Your task to perform on an android device: check data usage Image 0: 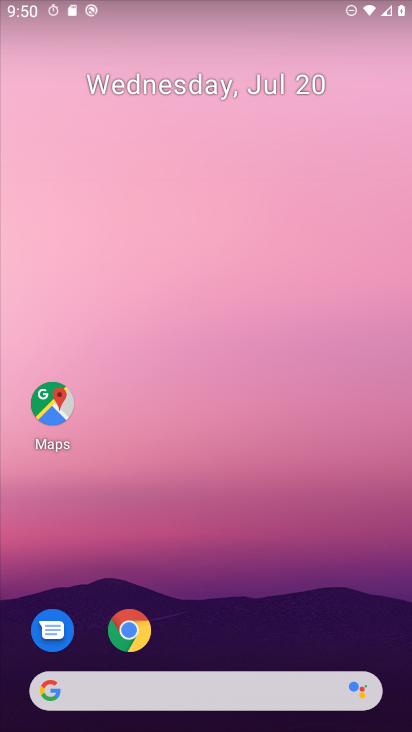
Step 0: drag from (195, 617) to (190, 211)
Your task to perform on an android device: check data usage Image 1: 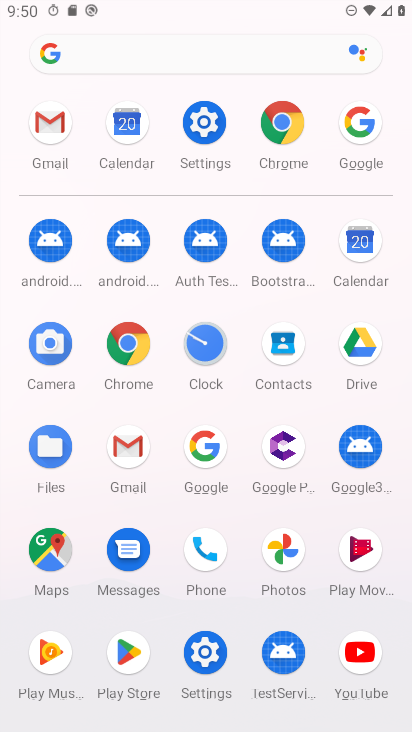
Step 1: click (210, 149)
Your task to perform on an android device: check data usage Image 2: 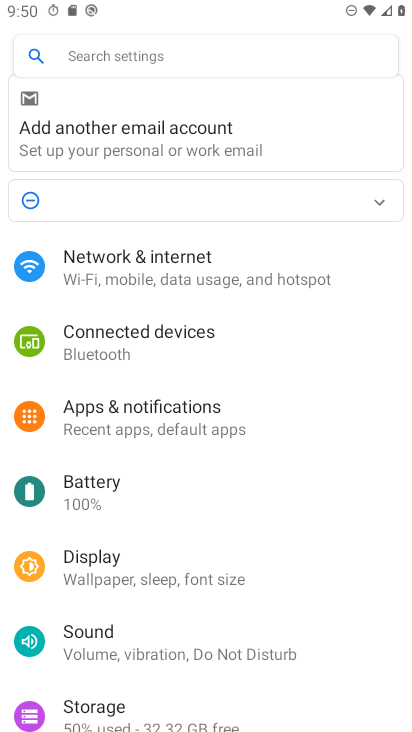
Step 2: click (153, 293)
Your task to perform on an android device: check data usage Image 3: 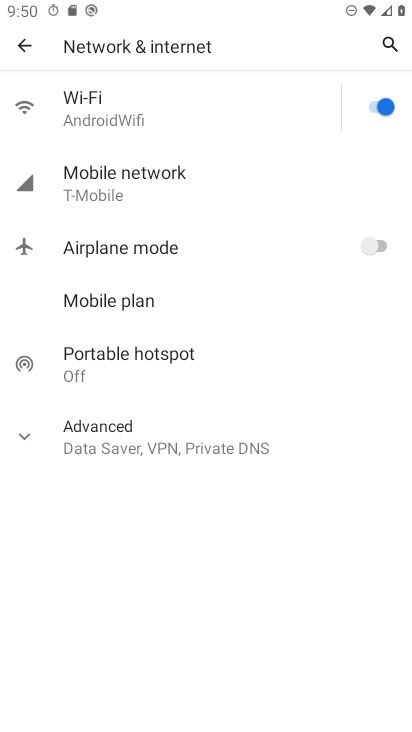
Step 3: click (141, 179)
Your task to perform on an android device: check data usage Image 4: 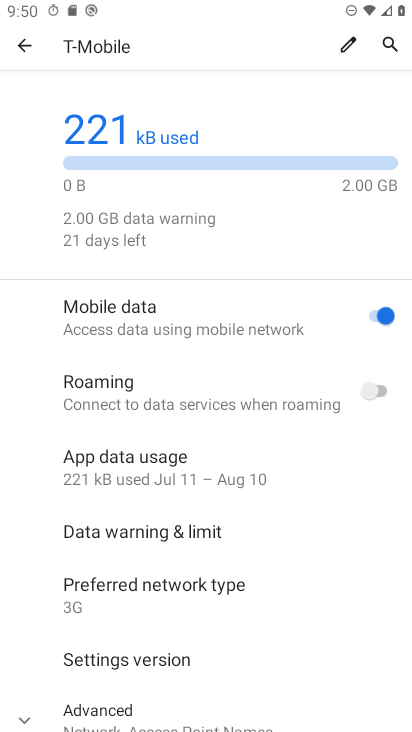
Step 4: click (239, 484)
Your task to perform on an android device: check data usage Image 5: 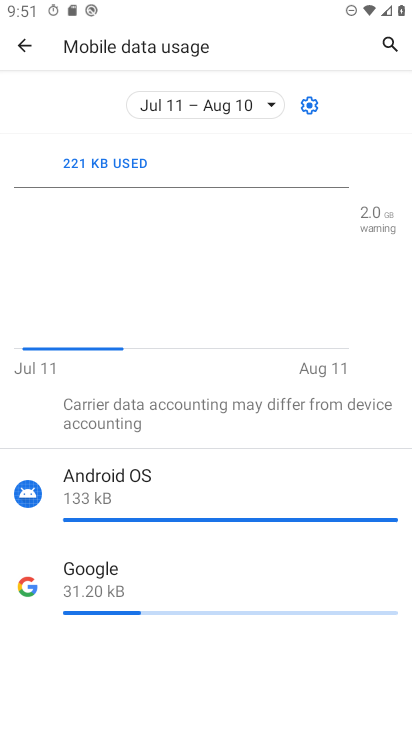
Step 5: task complete